Your task to perform on an android device: change timer sound Image 0: 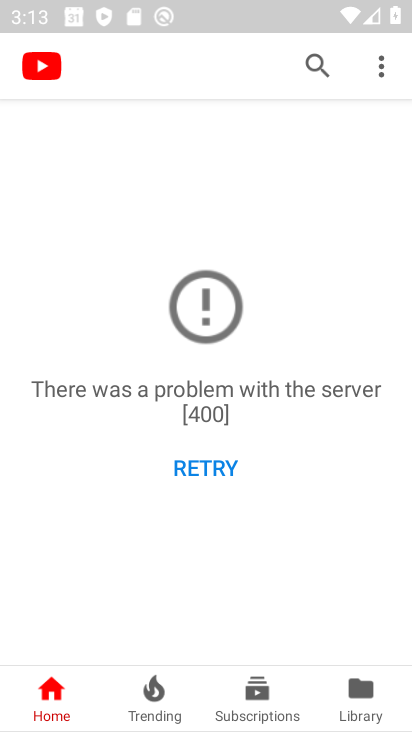
Step 0: press home button
Your task to perform on an android device: change timer sound Image 1: 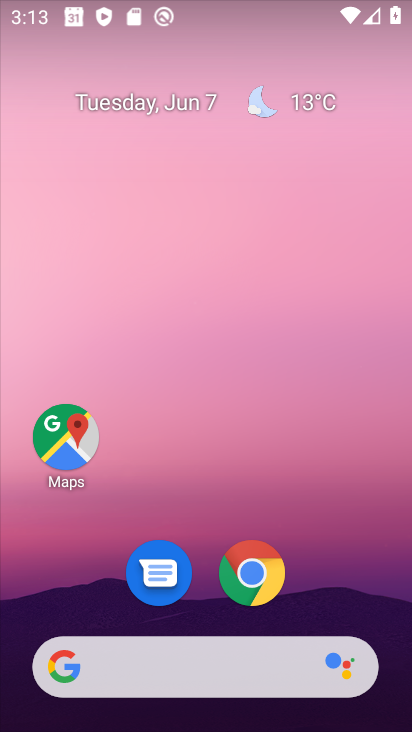
Step 1: drag from (347, 611) to (302, 155)
Your task to perform on an android device: change timer sound Image 2: 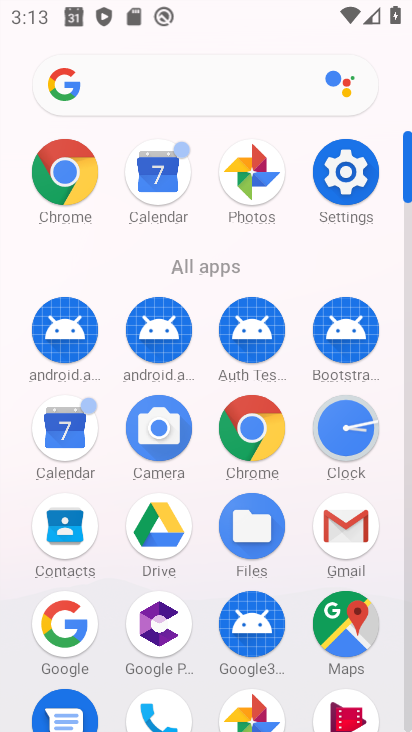
Step 2: click (355, 434)
Your task to perform on an android device: change timer sound Image 3: 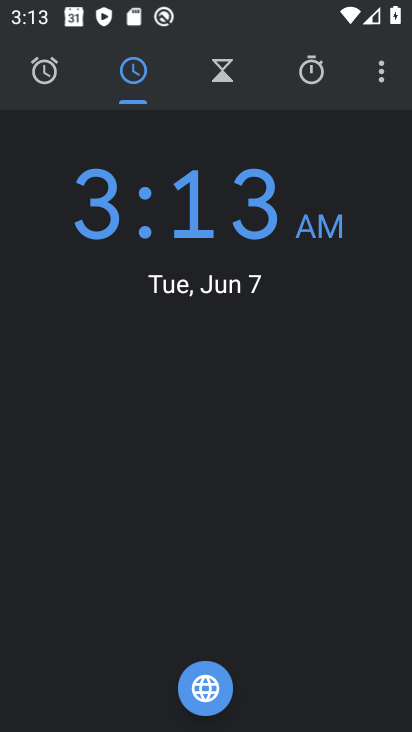
Step 3: click (387, 82)
Your task to perform on an android device: change timer sound Image 4: 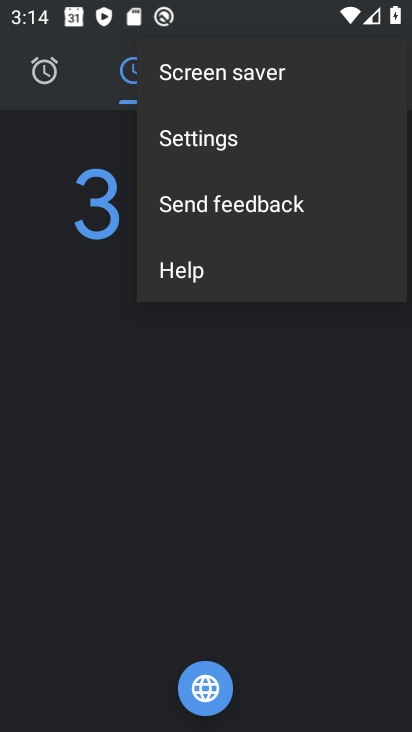
Step 4: click (313, 134)
Your task to perform on an android device: change timer sound Image 5: 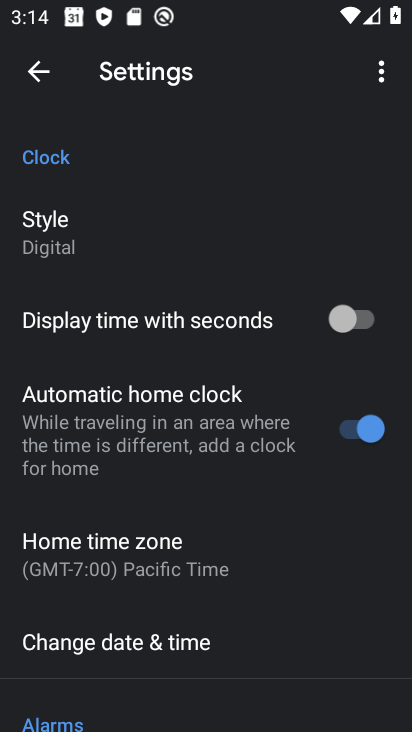
Step 5: drag from (228, 622) to (190, 301)
Your task to perform on an android device: change timer sound Image 6: 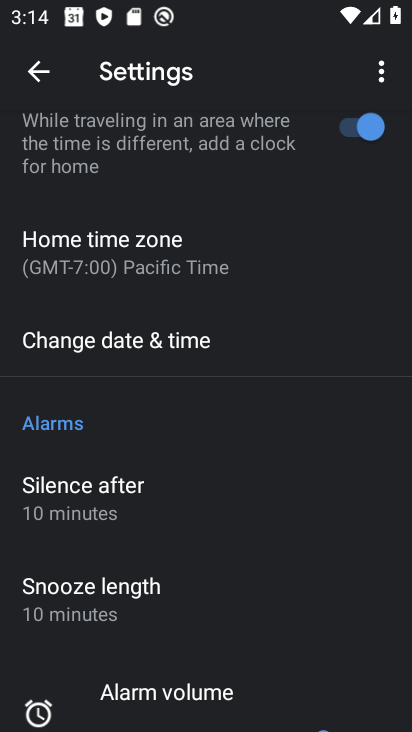
Step 6: drag from (233, 593) to (202, 73)
Your task to perform on an android device: change timer sound Image 7: 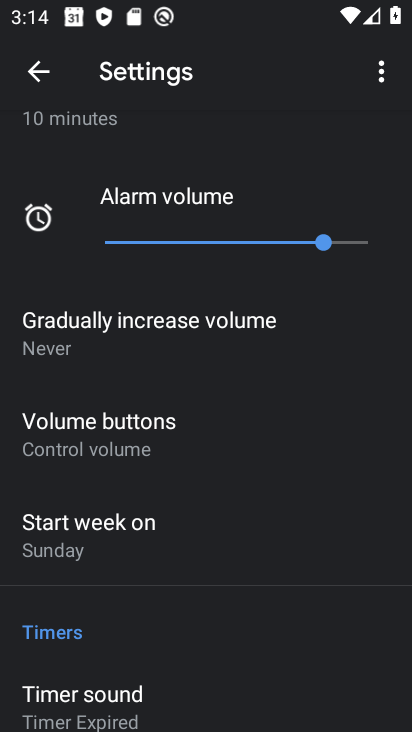
Step 7: drag from (163, 531) to (111, 246)
Your task to perform on an android device: change timer sound Image 8: 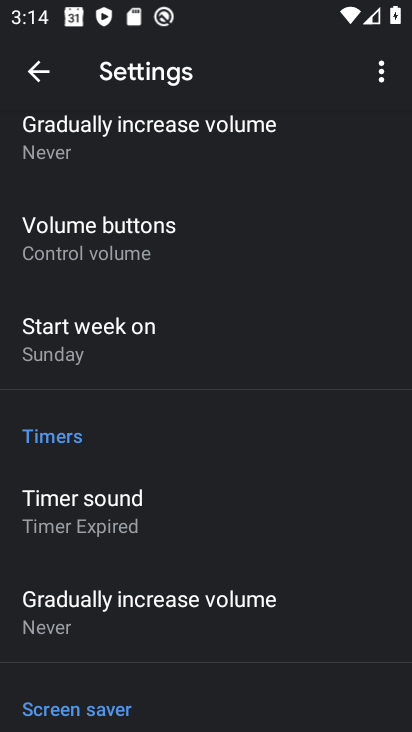
Step 8: click (134, 508)
Your task to perform on an android device: change timer sound Image 9: 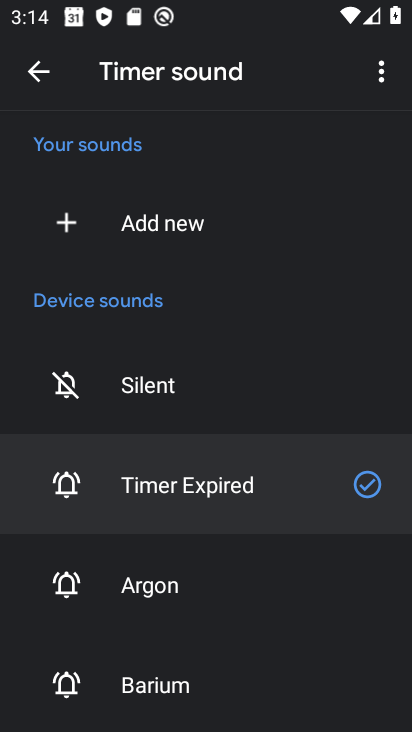
Step 9: click (168, 611)
Your task to perform on an android device: change timer sound Image 10: 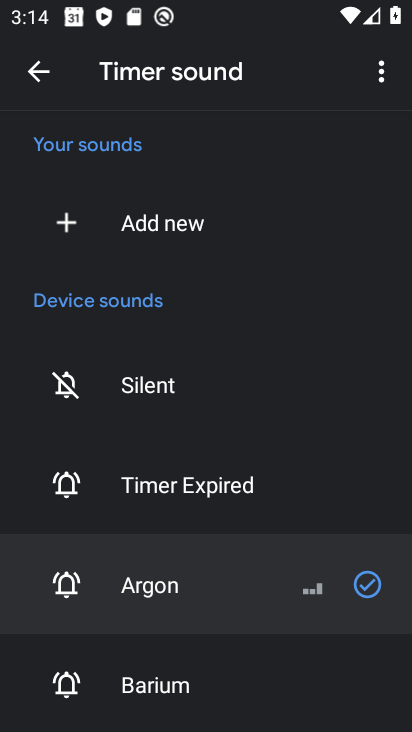
Step 10: task complete